Your task to perform on an android device: Go to sound settings Image 0: 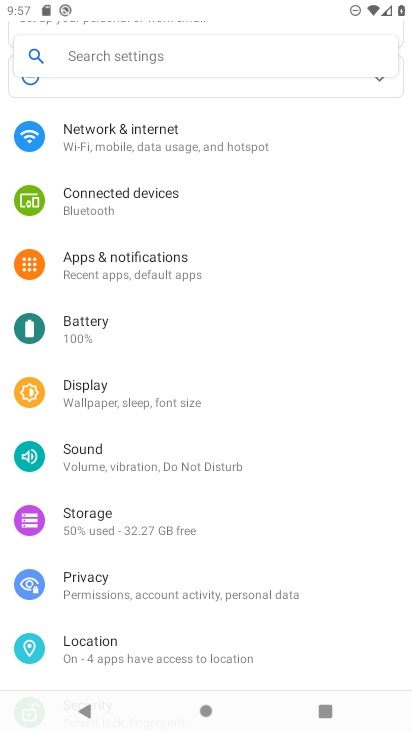
Step 0: press home button
Your task to perform on an android device: Go to sound settings Image 1: 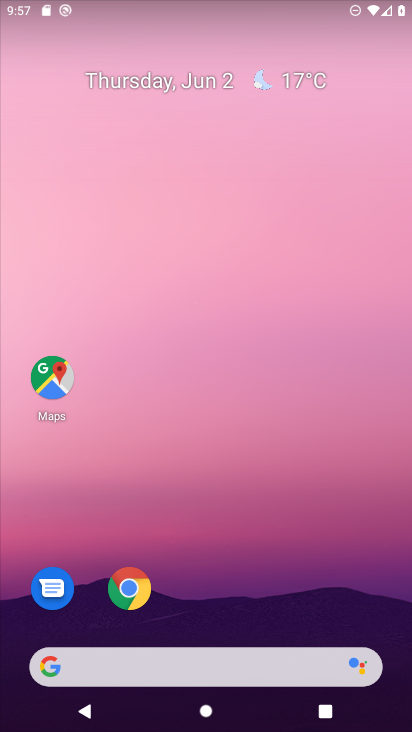
Step 1: drag from (240, 520) to (269, 391)
Your task to perform on an android device: Go to sound settings Image 2: 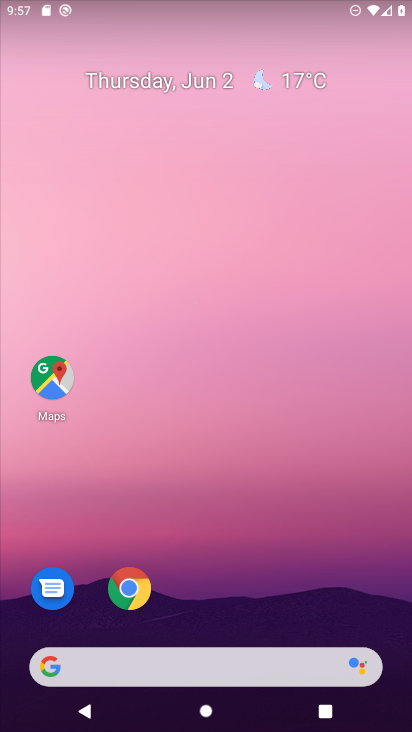
Step 2: drag from (207, 673) to (244, 343)
Your task to perform on an android device: Go to sound settings Image 3: 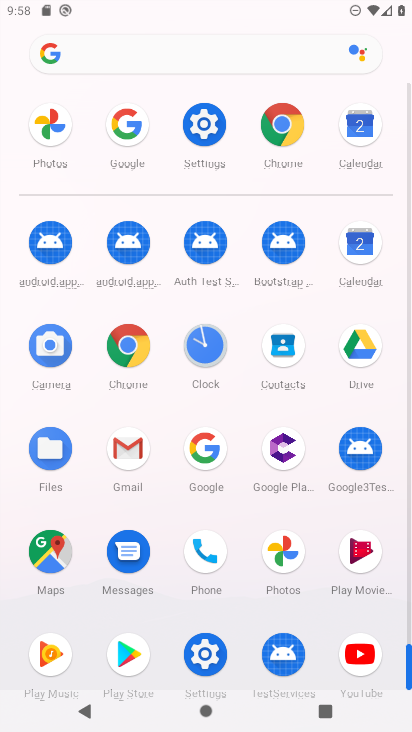
Step 3: click (202, 127)
Your task to perform on an android device: Go to sound settings Image 4: 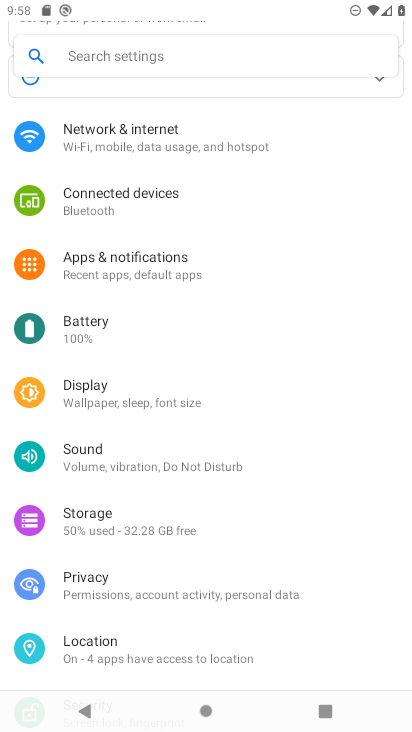
Step 4: click (167, 469)
Your task to perform on an android device: Go to sound settings Image 5: 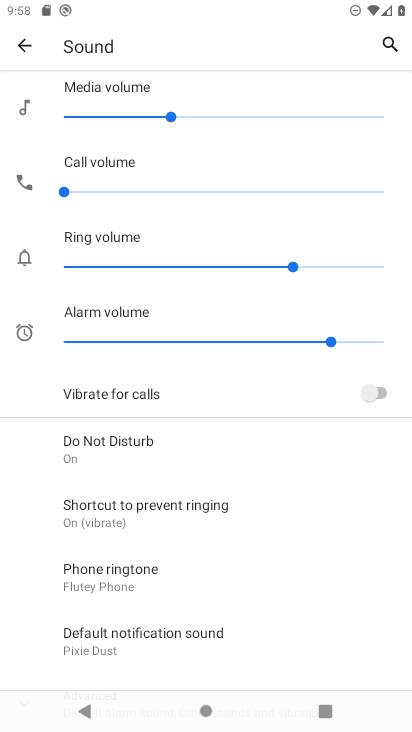
Step 5: task complete